Your task to perform on an android device: search for starred emails in the gmail app Image 0: 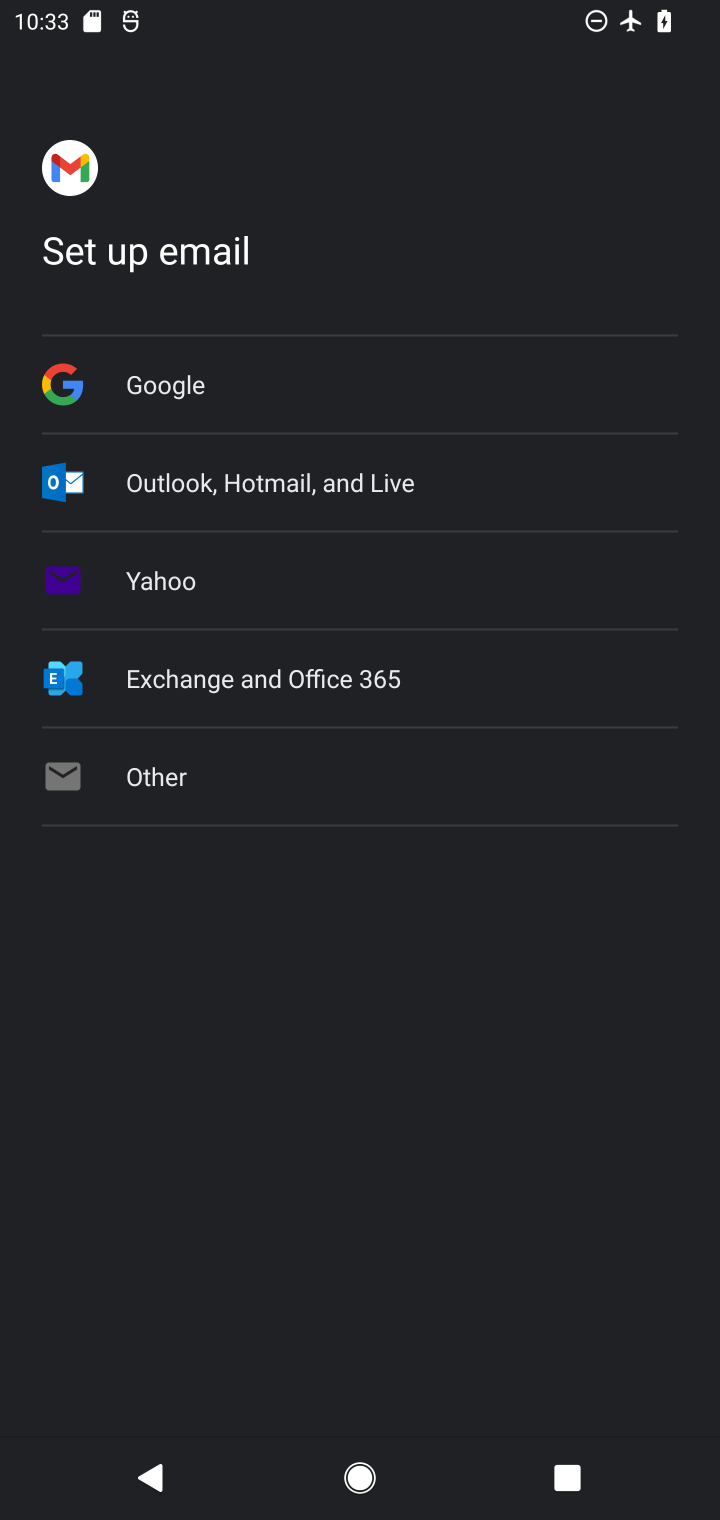
Step 0: press home button
Your task to perform on an android device: search for starred emails in the gmail app Image 1: 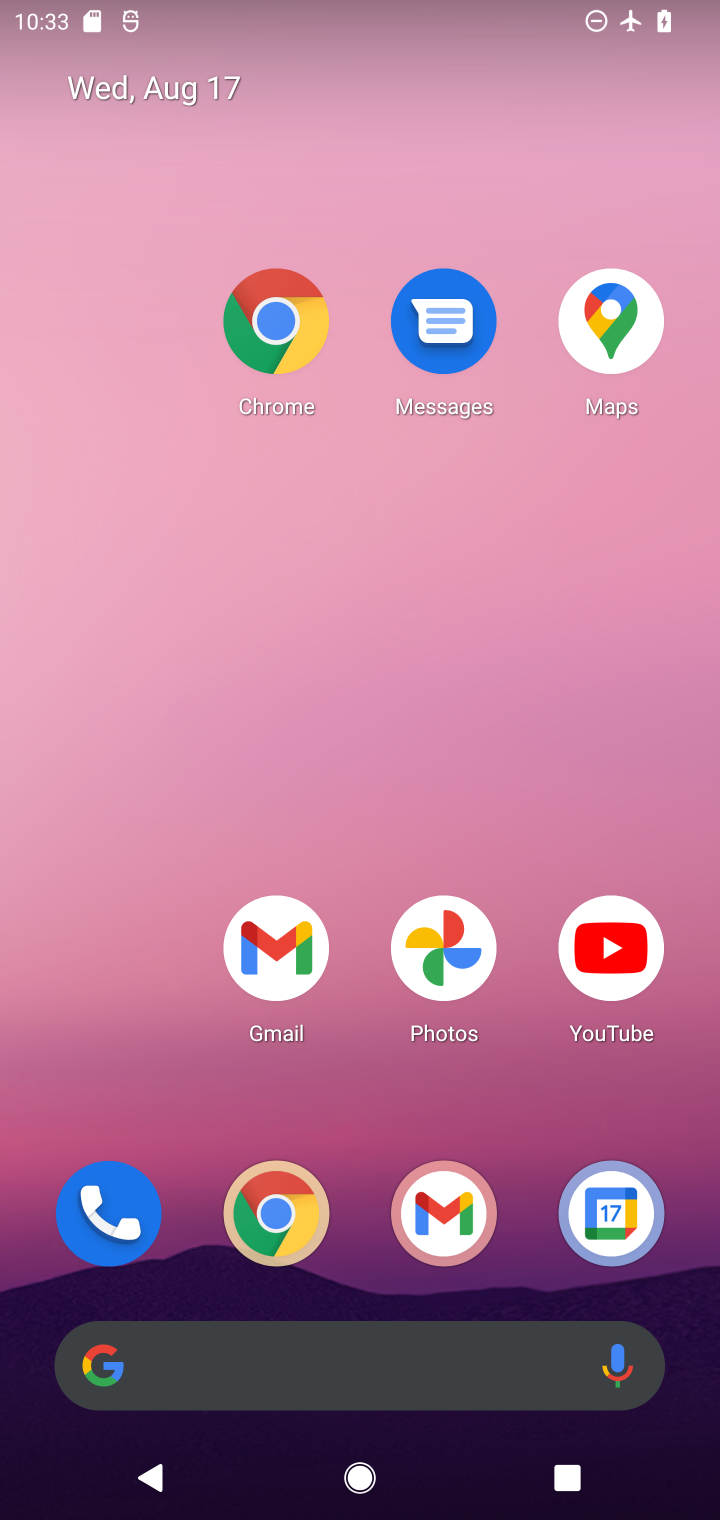
Step 1: click (251, 1011)
Your task to perform on an android device: search for starred emails in the gmail app Image 2: 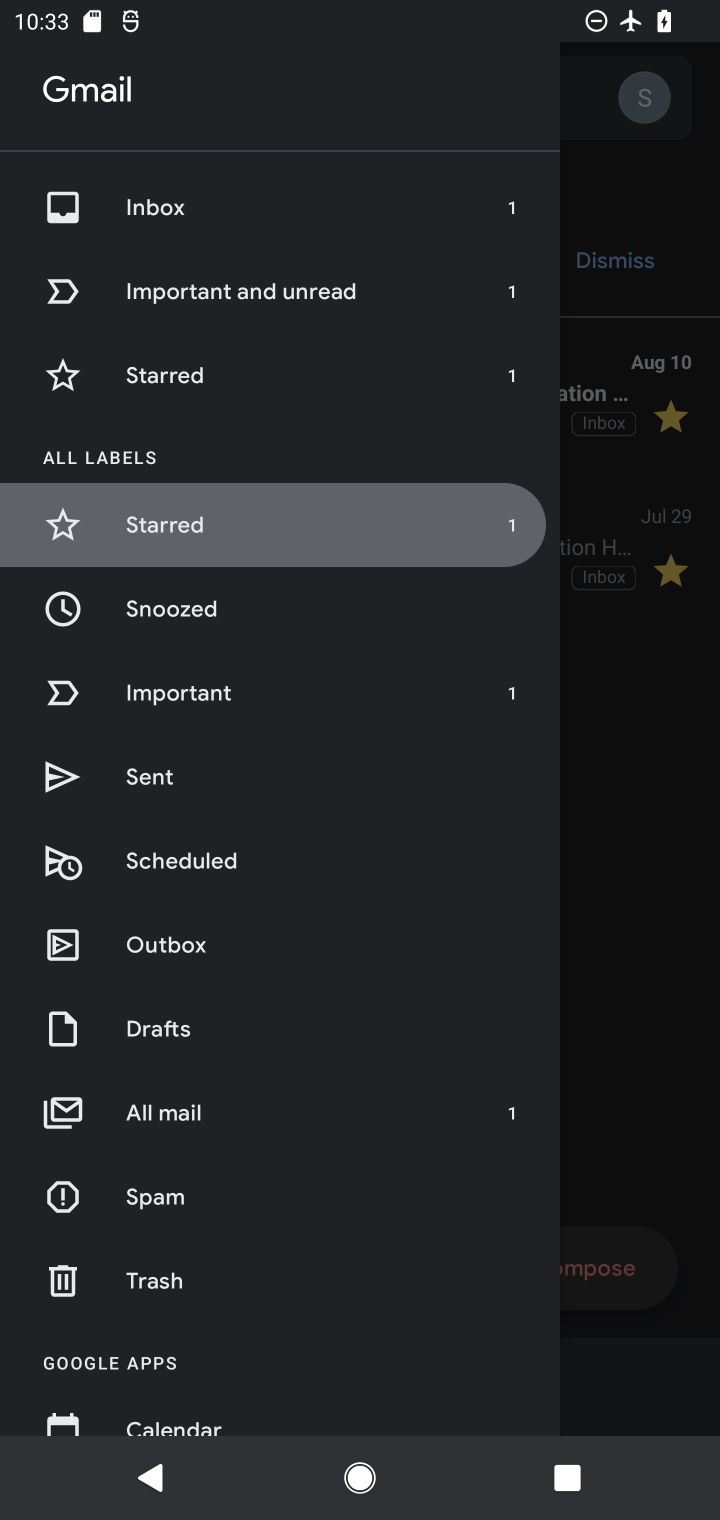
Step 2: click (238, 524)
Your task to perform on an android device: search for starred emails in the gmail app Image 3: 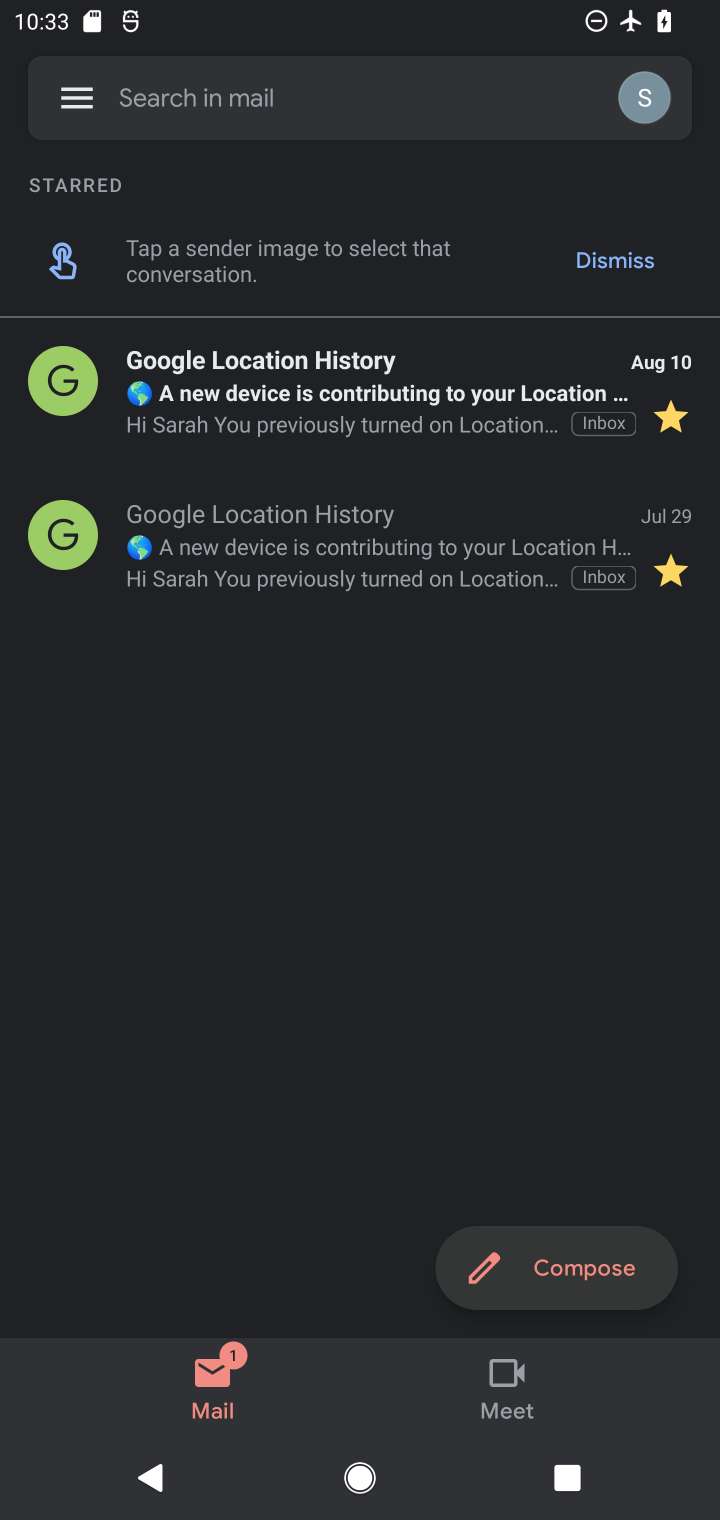
Step 3: task complete